Your task to perform on an android device: Show me popular videos on Youtube Image 0: 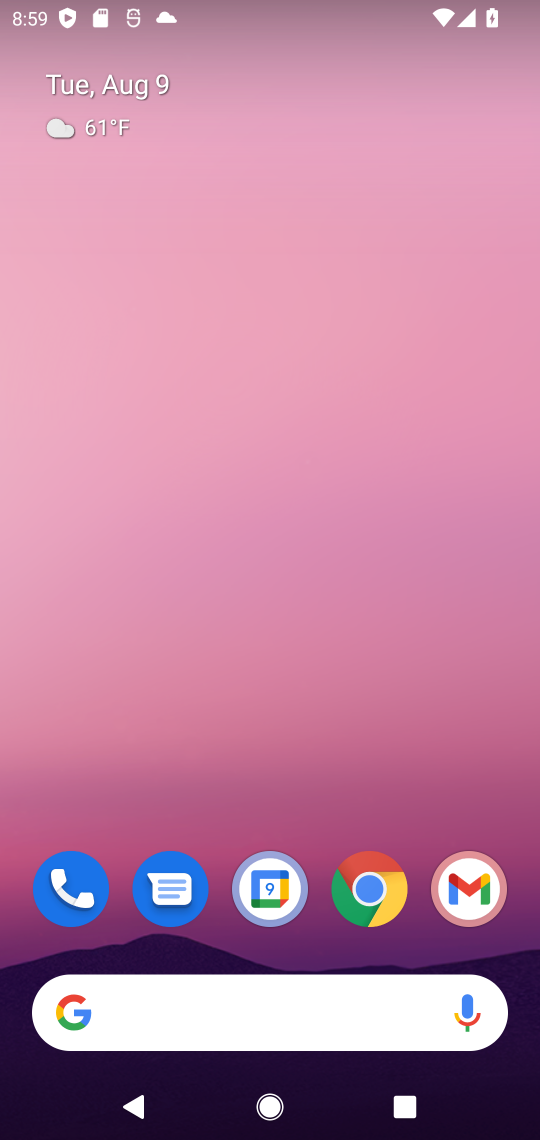
Step 0: drag from (93, 407) to (150, 110)
Your task to perform on an android device: Show me popular videos on Youtube Image 1: 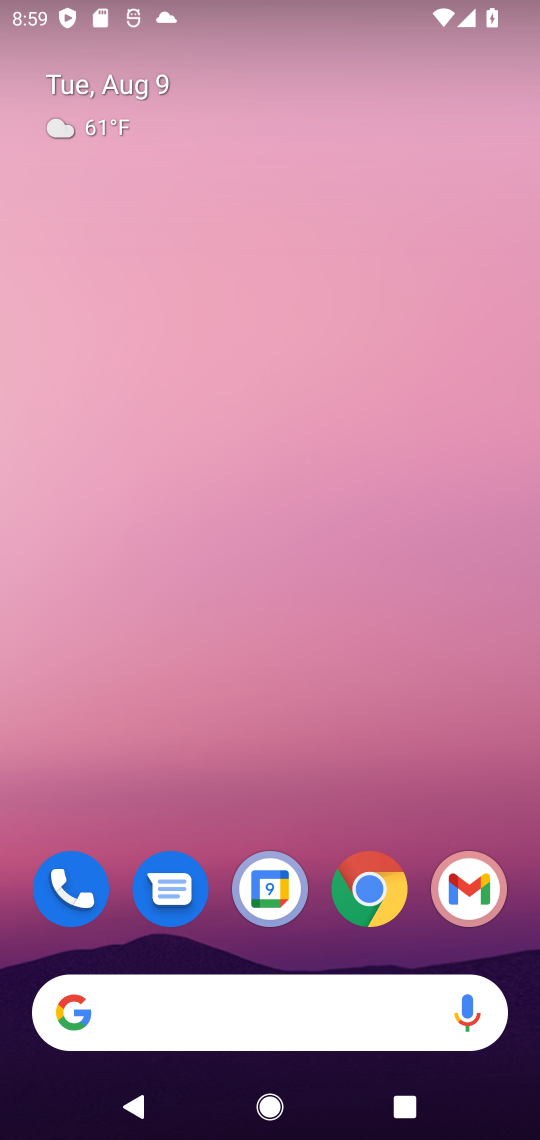
Step 1: drag from (246, 786) to (297, 45)
Your task to perform on an android device: Show me popular videos on Youtube Image 2: 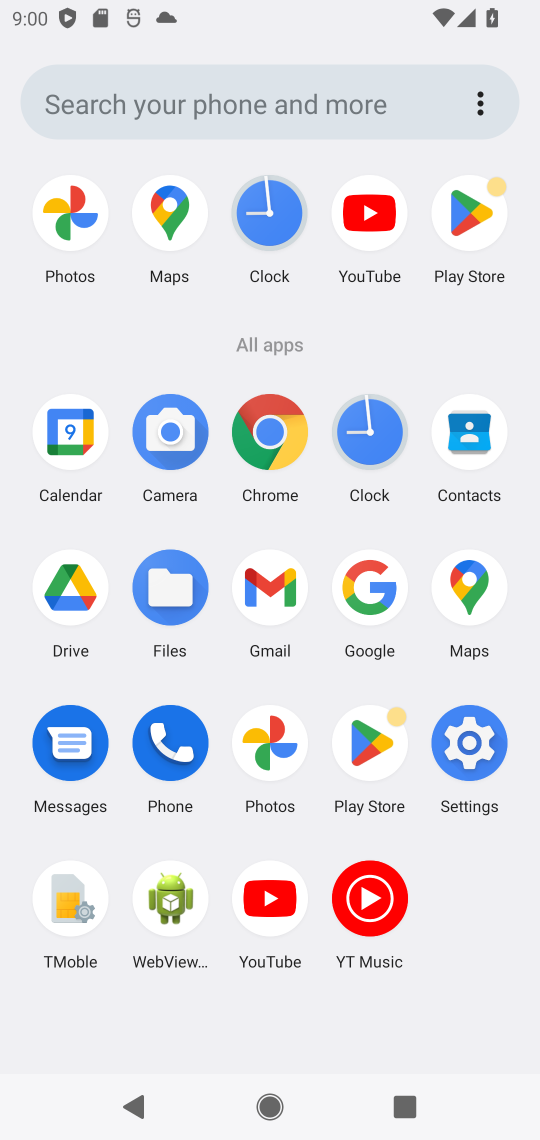
Step 2: click (366, 217)
Your task to perform on an android device: Show me popular videos on Youtube Image 3: 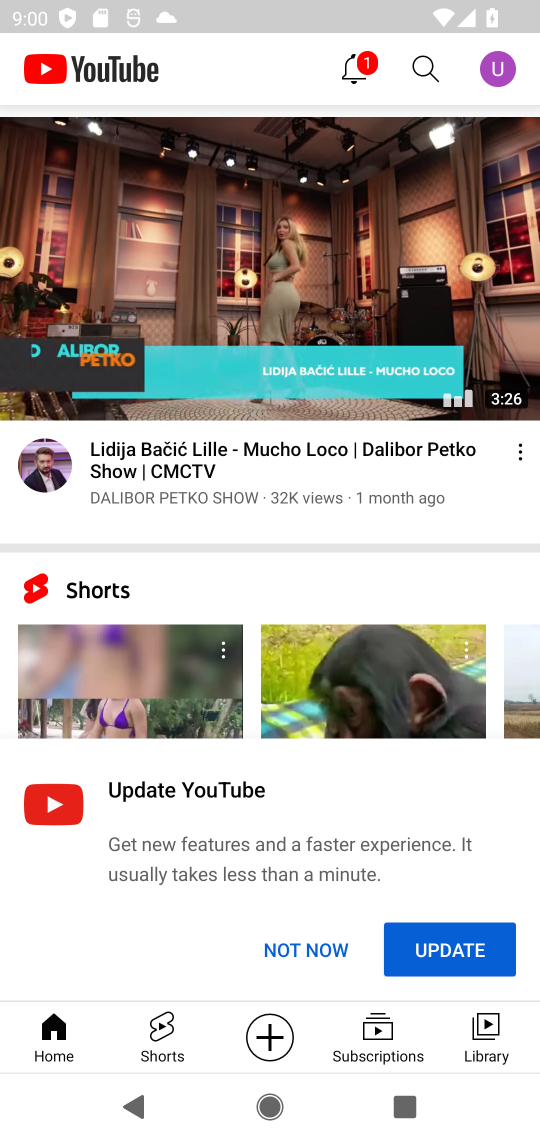
Step 3: click (414, 74)
Your task to perform on an android device: Show me popular videos on Youtube Image 4: 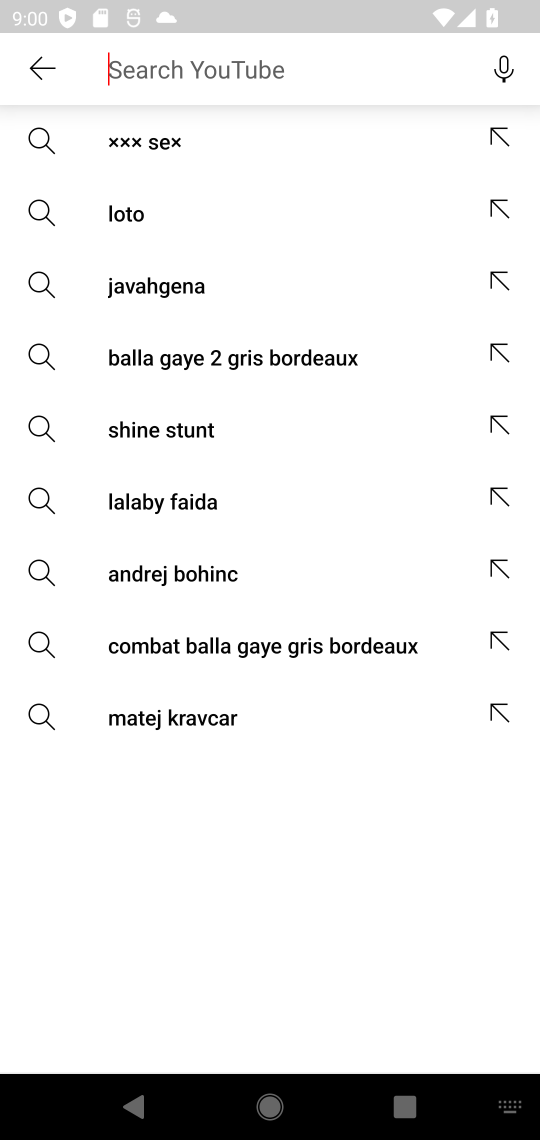
Step 4: type "popular videos"
Your task to perform on an android device: Show me popular videos on Youtube Image 5: 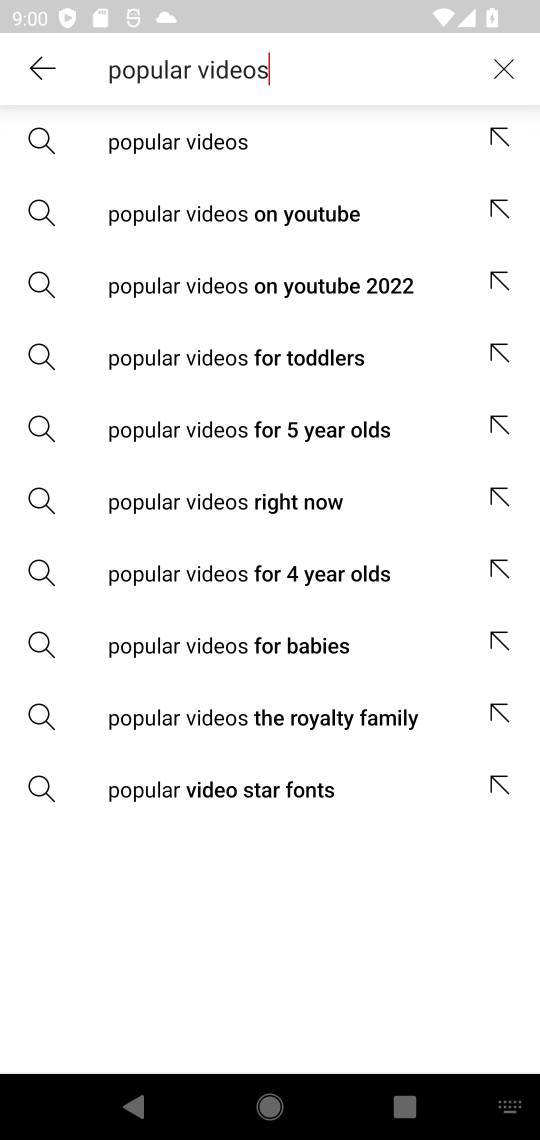
Step 5: click (236, 139)
Your task to perform on an android device: Show me popular videos on Youtube Image 6: 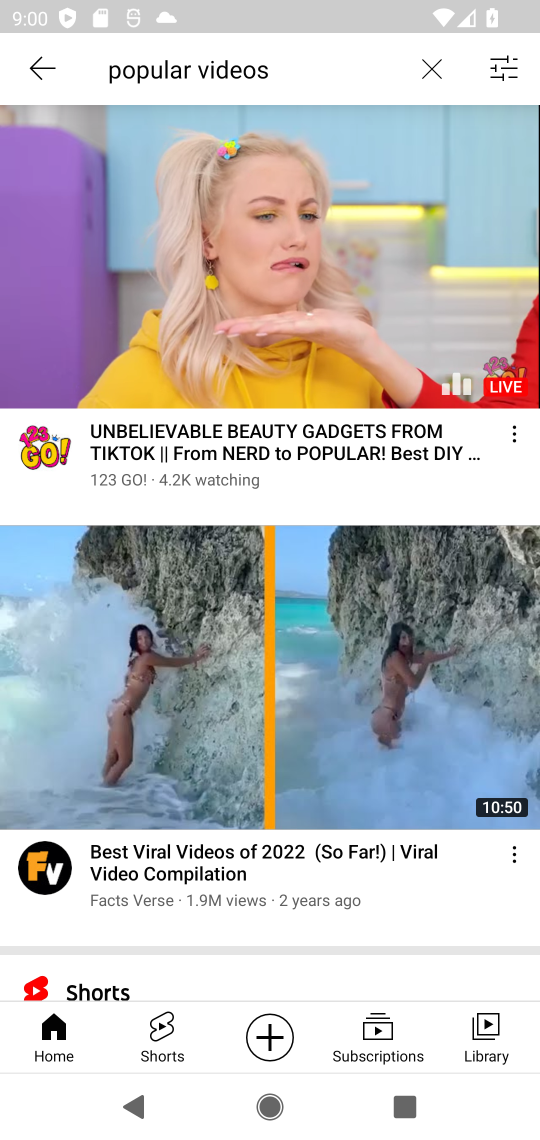
Step 6: task complete